Your task to perform on an android device: turn off location history Image 0: 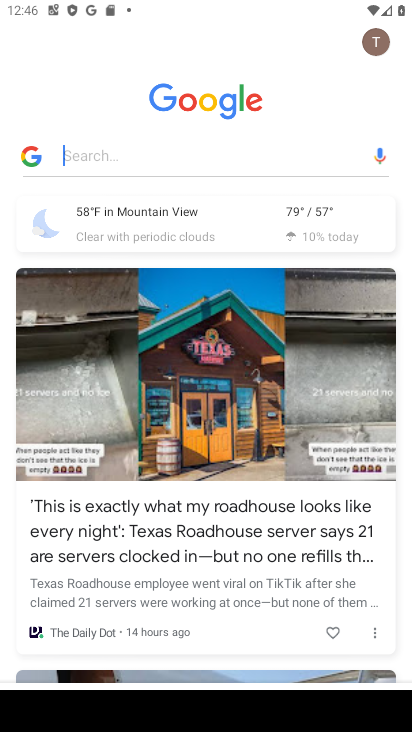
Step 0: drag from (307, 571) to (350, 402)
Your task to perform on an android device: turn off location history Image 1: 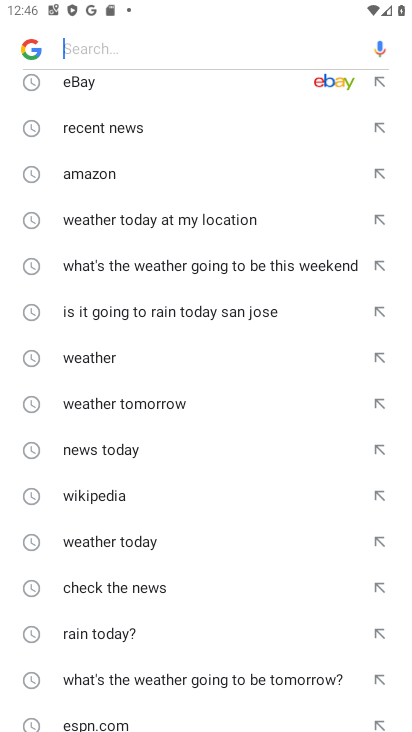
Step 1: press home button
Your task to perform on an android device: turn off location history Image 2: 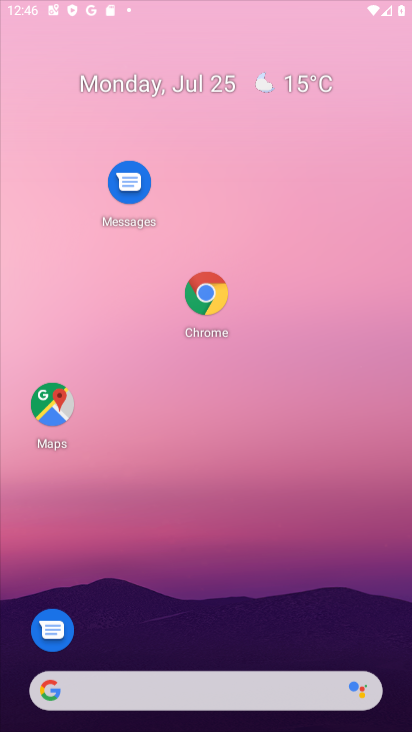
Step 2: drag from (316, 601) to (341, 121)
Your task to perform on an android device: turn off location history Image 3: 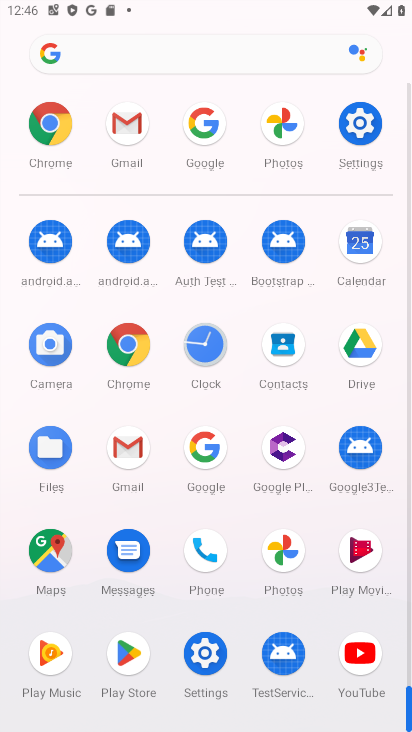
Step 3: click (57, 542)
Your task to perform on an android device: turn off location history Image 4: 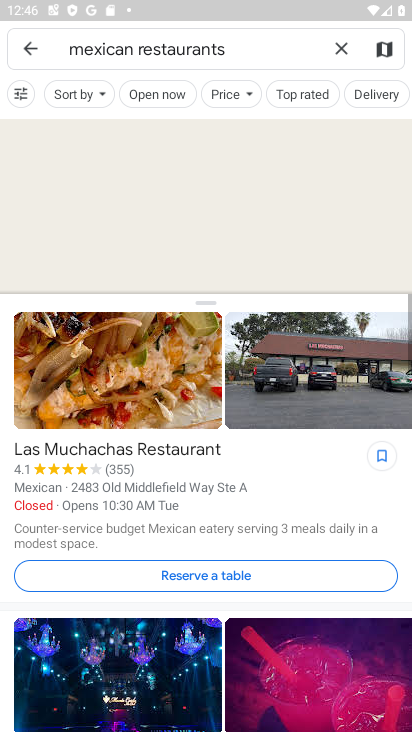
Step 4: click (33, 54)
Your task to perform on an android device: turn off location history Image 5: 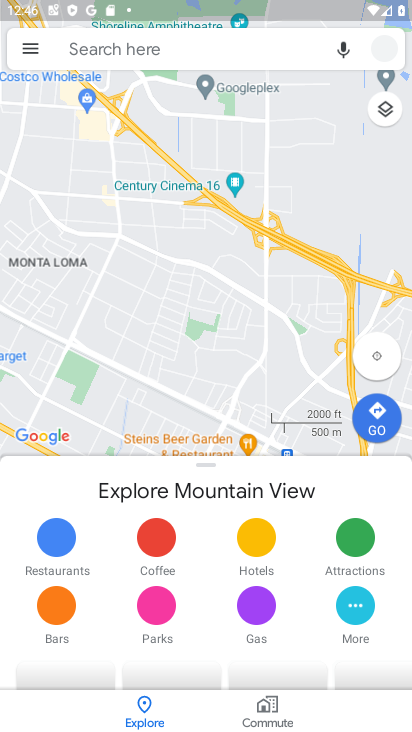
Step 5: click (33, 54)
Your task to perform on an android device: turn off location history Image 6: 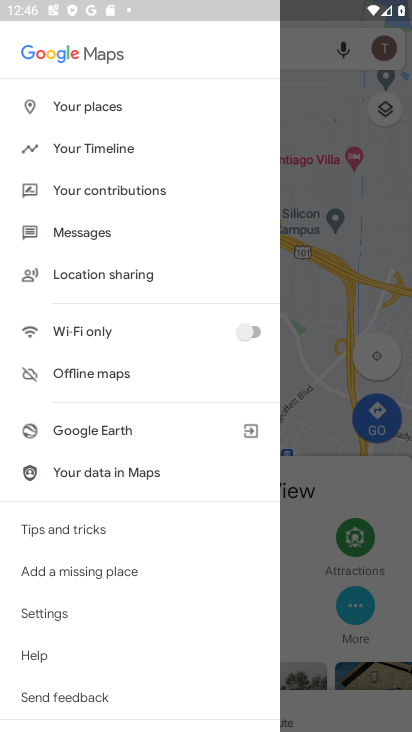
Step 6: click (78, 142)
Your task to perform on an android device: turn off location history Image 7: 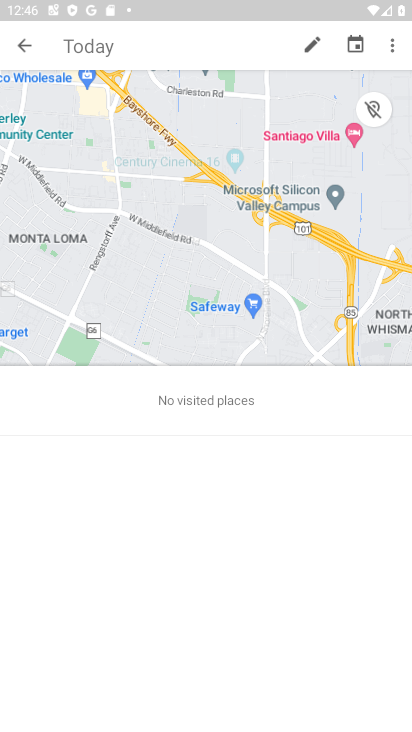
Step 7: click (386, 40)
Your task to perform on an android device: turn off location history Image 8: 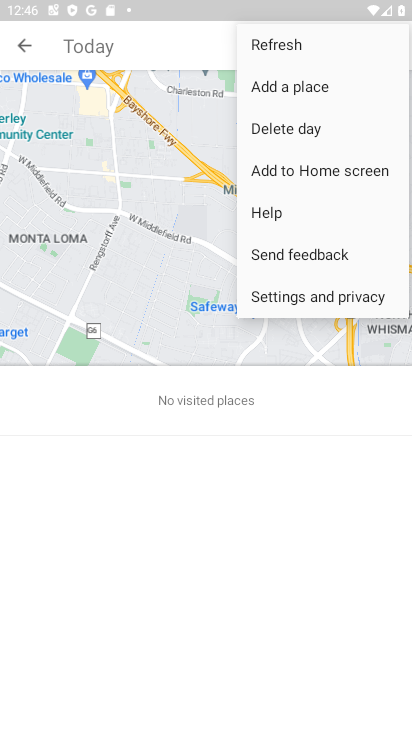
Step 8: click (269, 291)
Your task to perform on an android device: turn off location history Image 9: 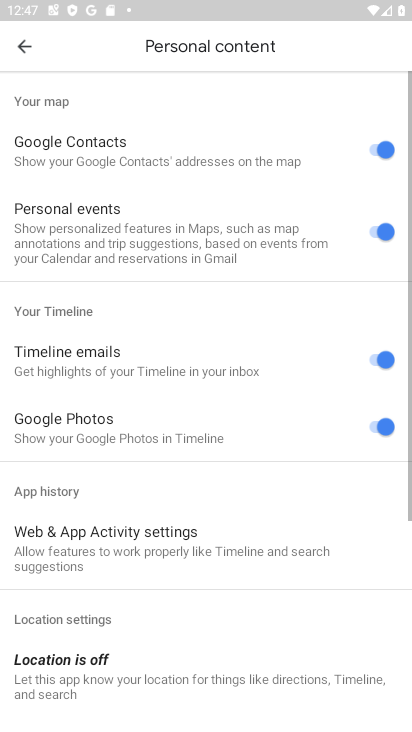
Step 9: drag from (240, 579) to (275, 223)
Your task to perform on an android device: turn off location history Image 10: 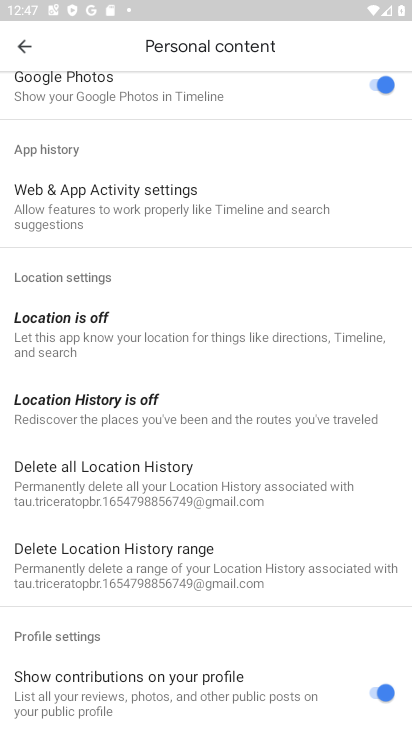
Step 10: click (101, 402)
Your task to perform on an android device: turn off location history Image 11: 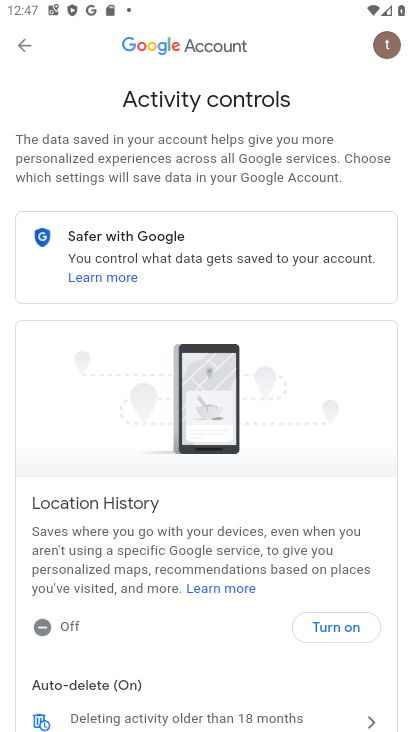
Step 11: task complete